Your task to perform on an android device: Go to internet settings Image 0: 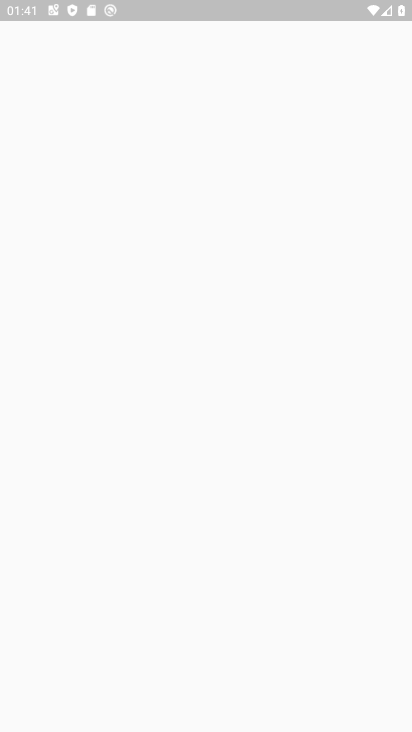
Step 0: press home button
Your task to perform on an android device: Go to internet settings Image 1: 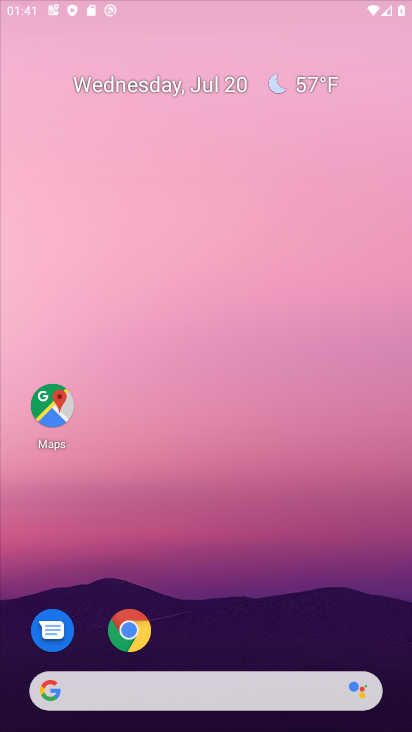
Step 1: drag from (289, 506) to (257, 74)
Your task to perform on an android device: Go to internet settings Image 2: 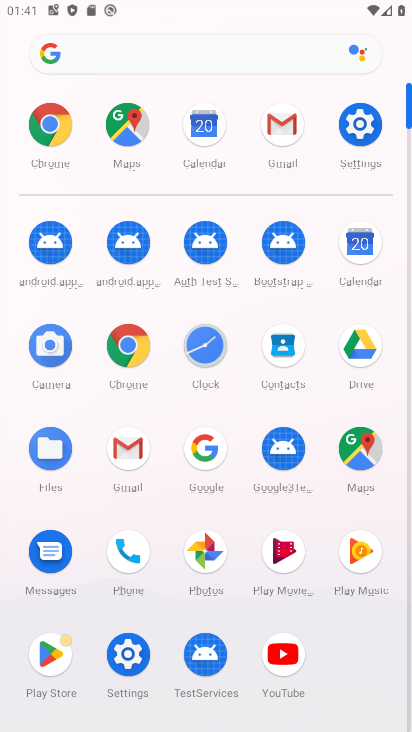
Step 2: click (364, 110)
Your task to perform on an android device: Go to internet settings Image 3: 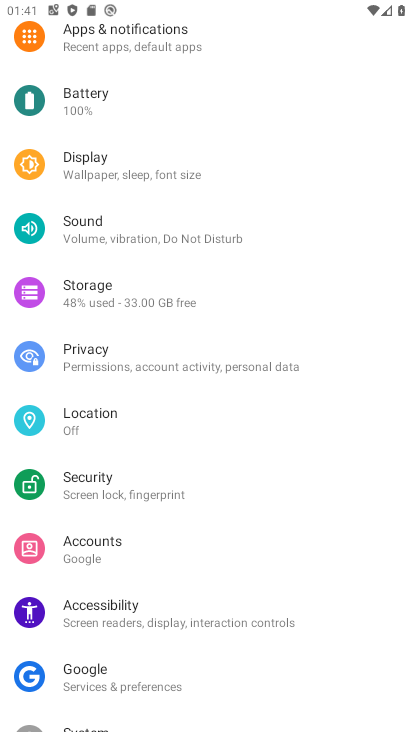
Step 3: drag from (230, 101) to (203, 538)
Your task to perform on an android device: Go to internet settings Image 4: 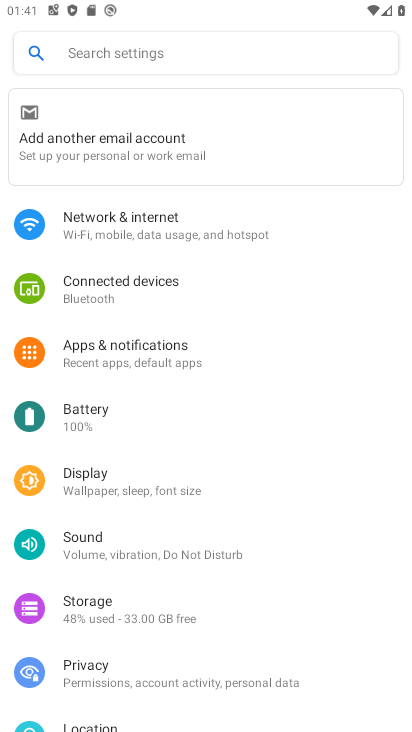
Step 4: click (190, 243)
Your task to perform on an android device: Go to internet settings Image 5: 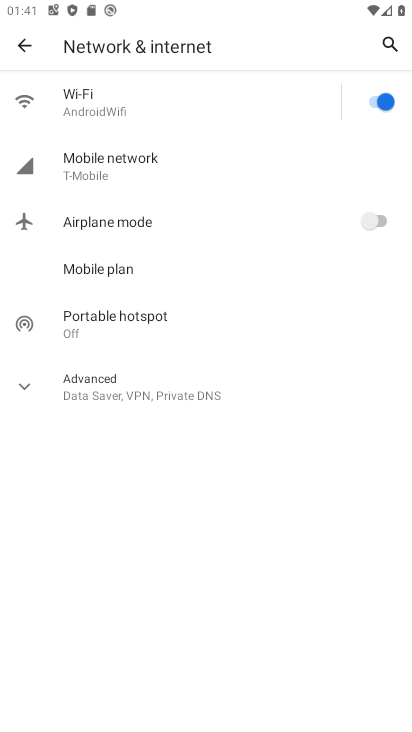
Step 5: click (159, 396)
Your task to perform on an android device: Go to internet settings Image 6: 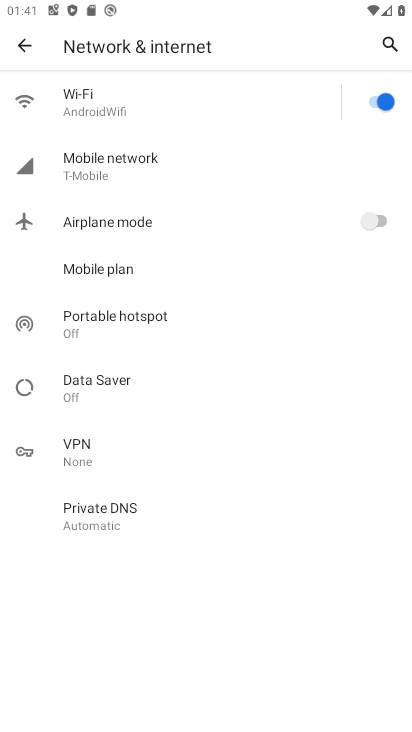
Step 6: task complete